Your task to perform on an android device: clear all cookies in the chrome app Image 0: 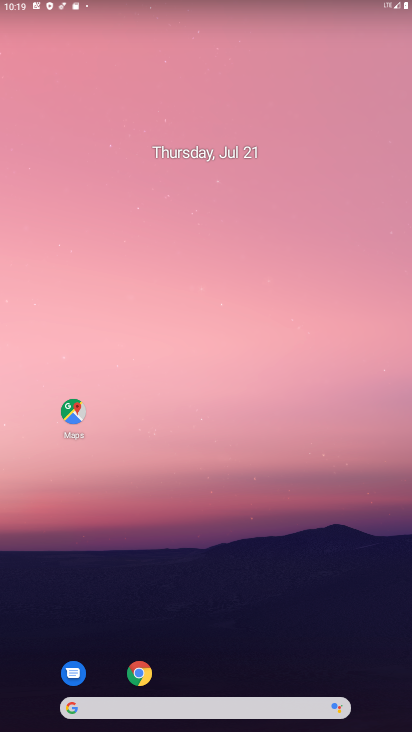
Step 0: click (154, 683)
Your task to perform on an android device: clear all cookies in the chrome app Image 1: 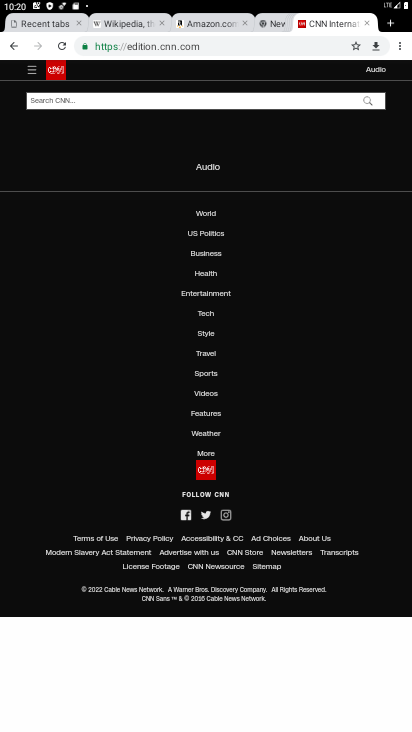
Step 1: click (392, 37)
Your task to perform on an android device: clear all cookies in the chrome app Image 2: 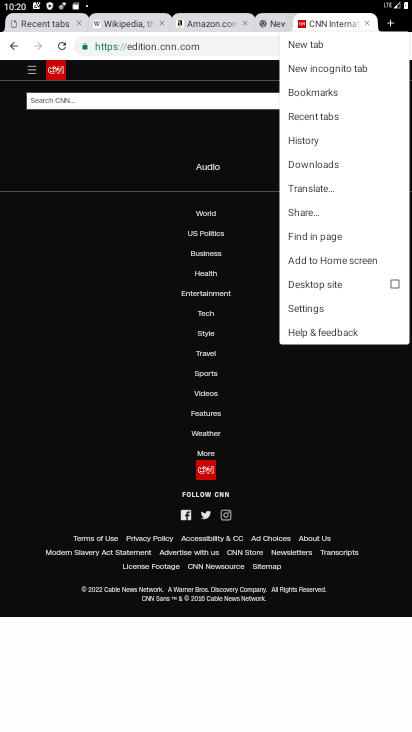
Step 2: click (335, 146)
Your task to perform on an android device: clear all cookies in the chrome app Image 3: 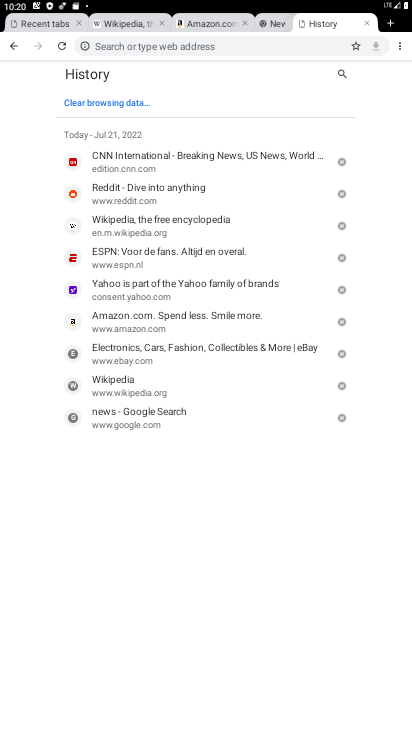
Step 3: click (99, 97)
Your task to perform on an android device: clear all cookies in the chrome app Image 4: 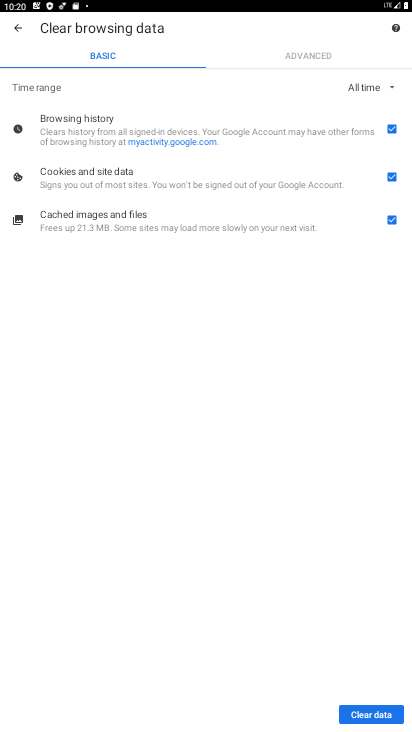
Step 4: click (393, 715)
Your task to perform on an android device: clear all cookies in the chrome app Image 5: 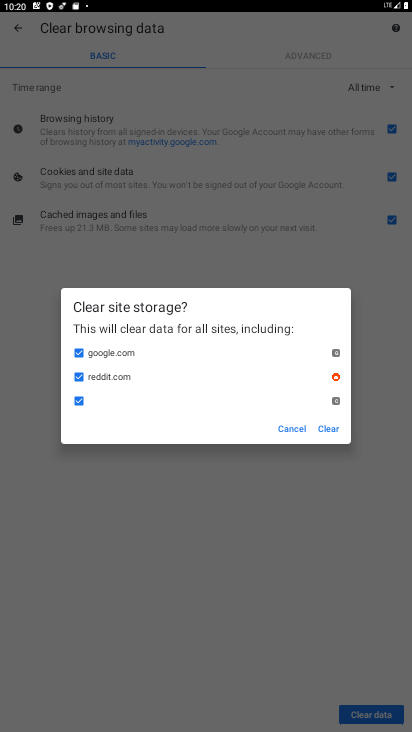
Step 5: click (325, 434)
Your task to perform on an android device: clear all cookies in the chrome app Image 6: 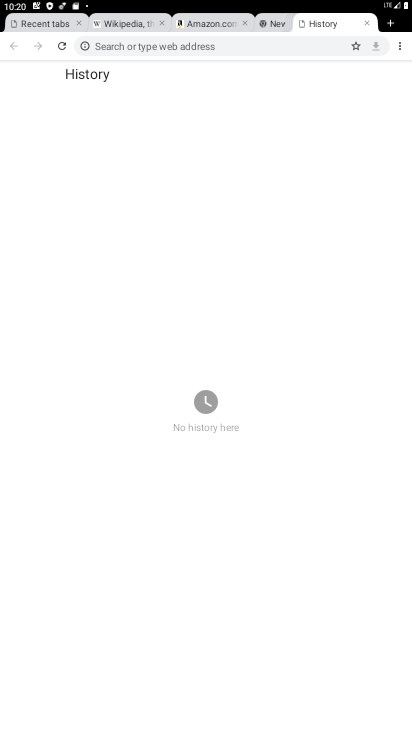
Step 6: task complete